Your task to perform on an android device: What's the news in Taiwan? Image 0: 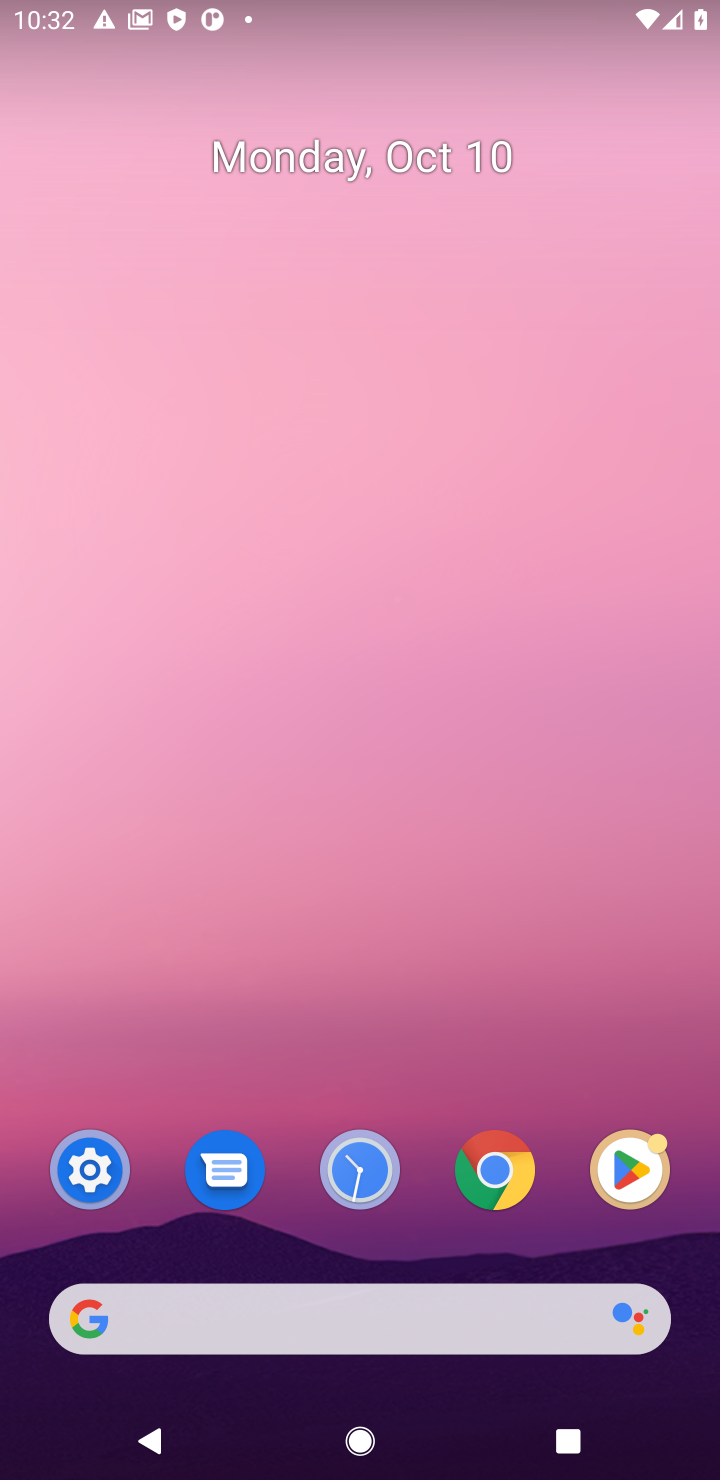
Step 0: drag from (284, 1262) to (266, 289)
Your task to perform on an android device: What's the news in Taiwan? Image 1: 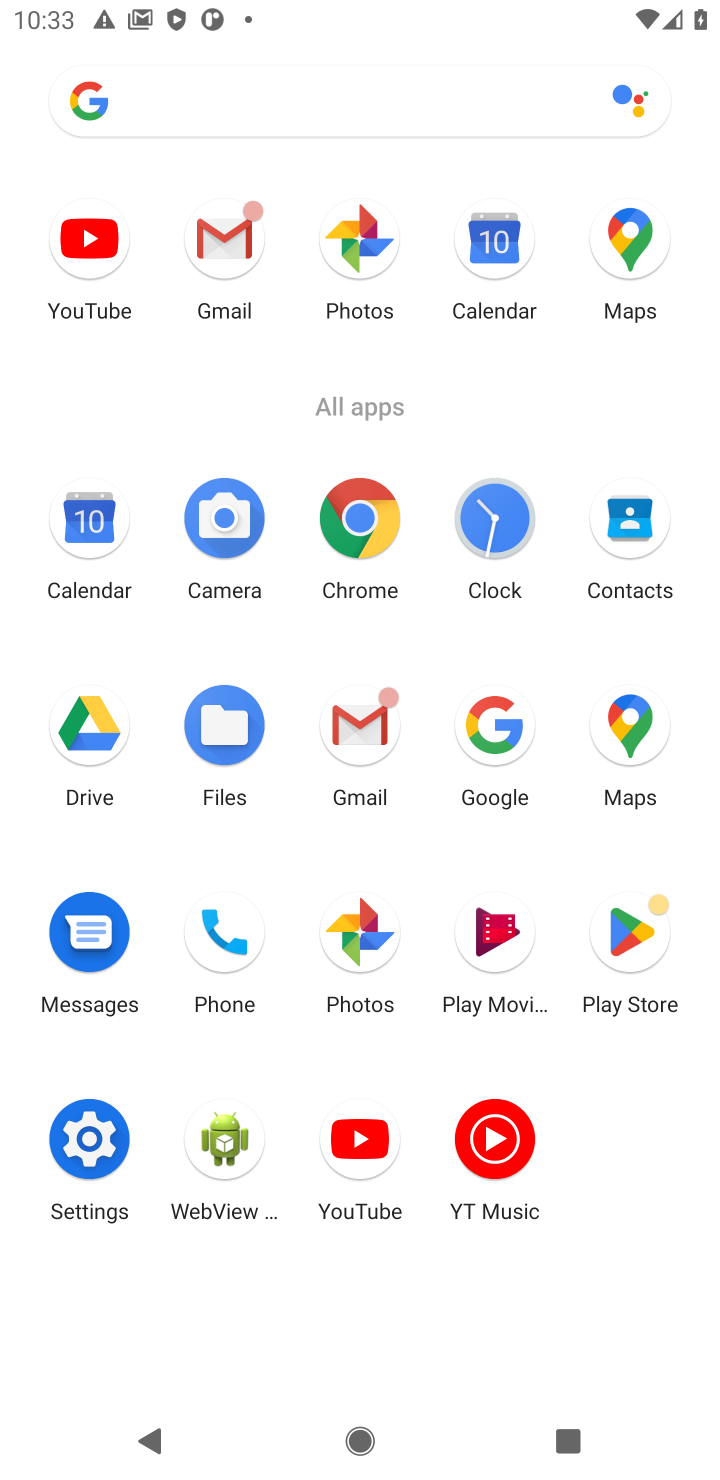
Step 1: click (500, 725)
Your task to perform on an android device: What's the news in Taiwan? Image 2: 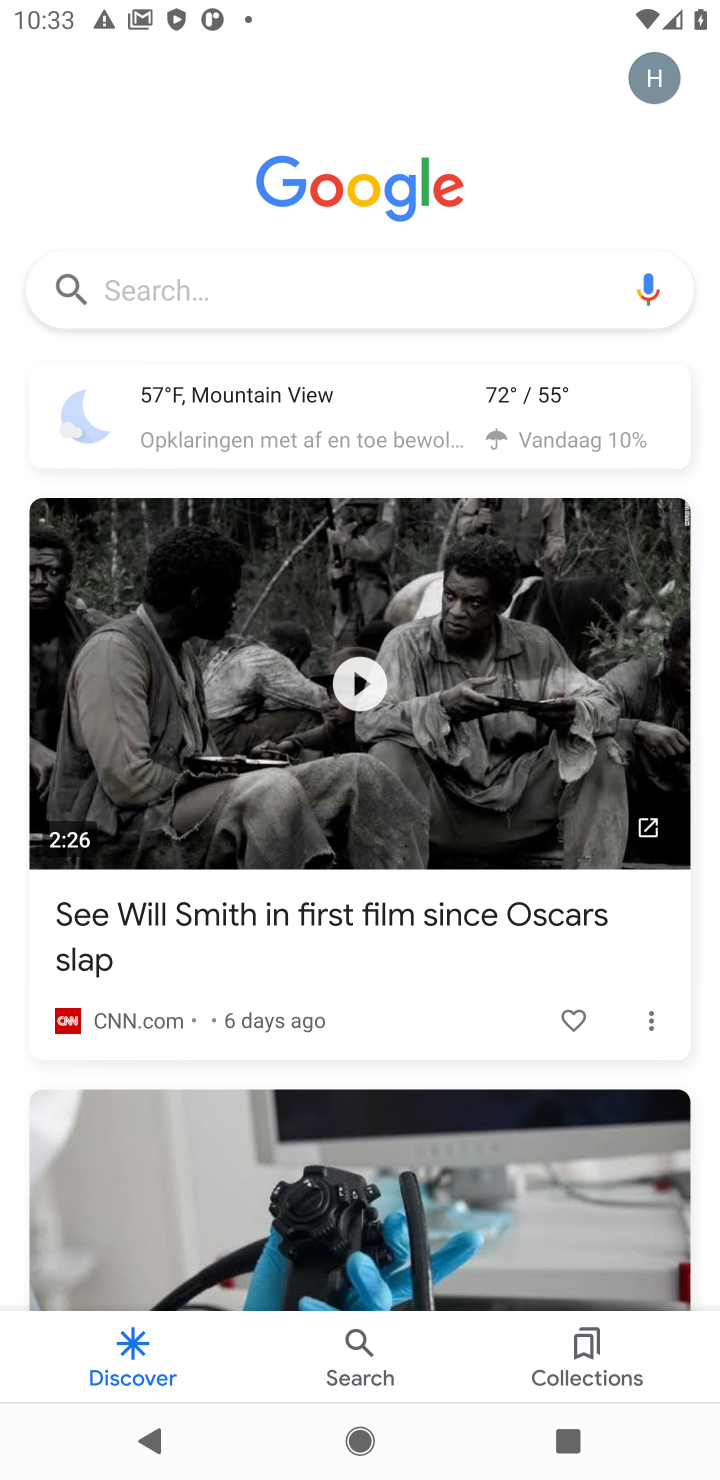
Step 2: click (376, 298)
Your task to perform on an android device: What's the news in Taiwan? Image 3: 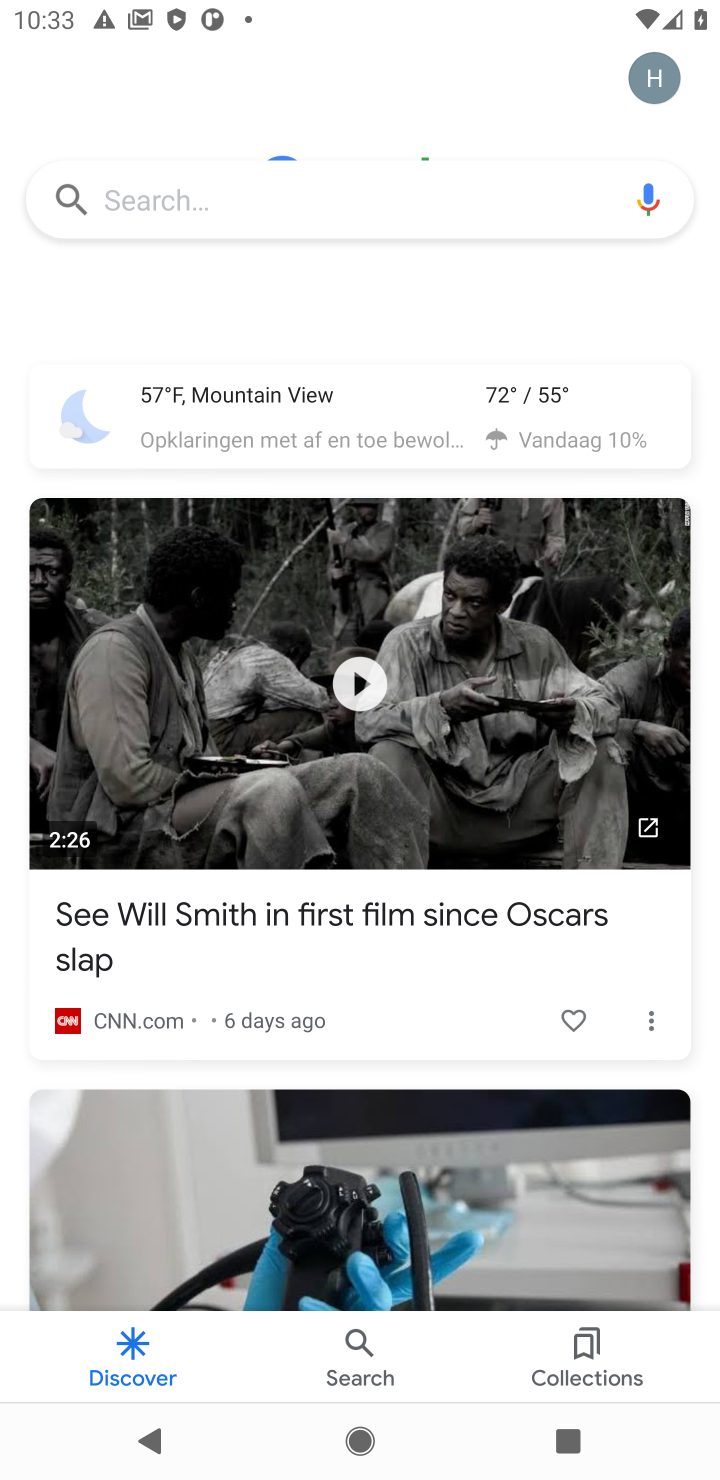
Step 3: click (376, 298)
Your task to perform on an android device: What's the news in Taiwan? Image 4: 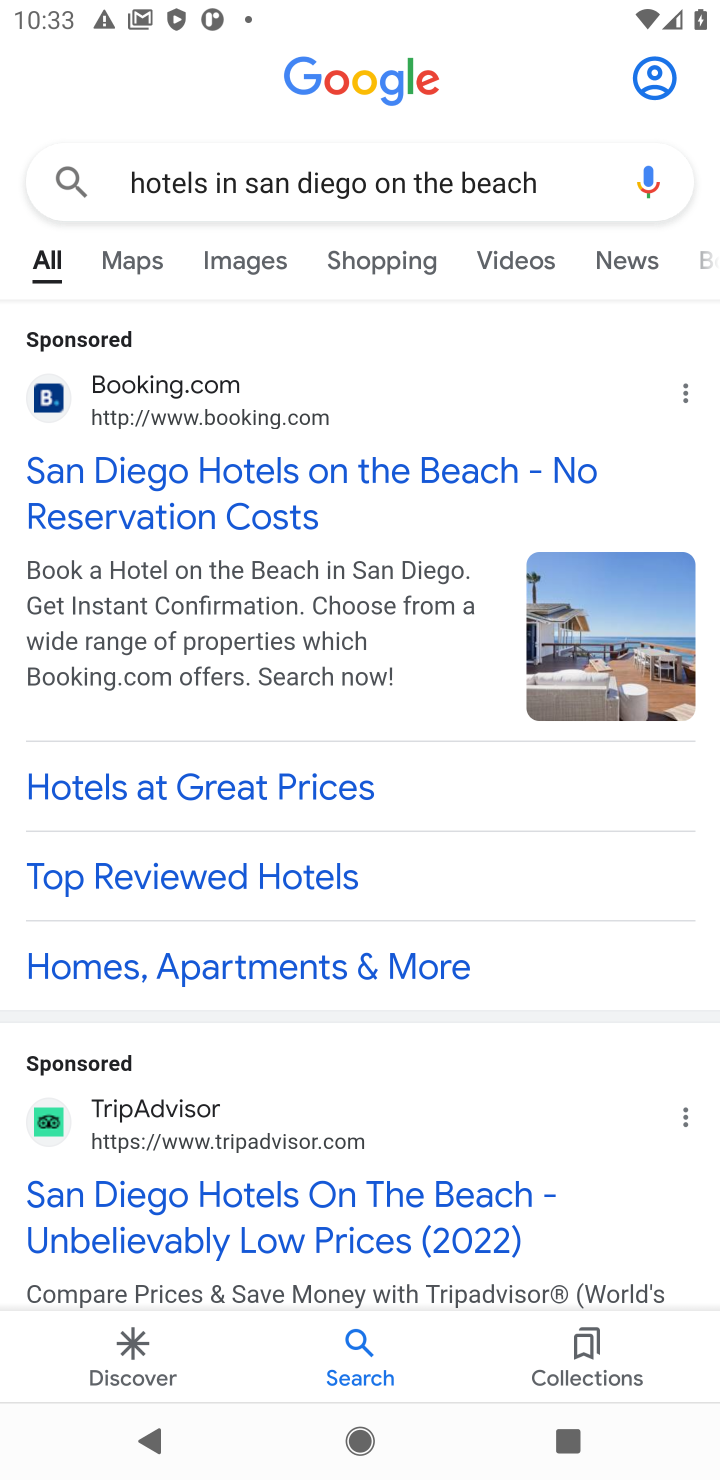
Step 4: click (518, 170)
Your task to perform on an android device: What's the news in Taiwan? Image 5: 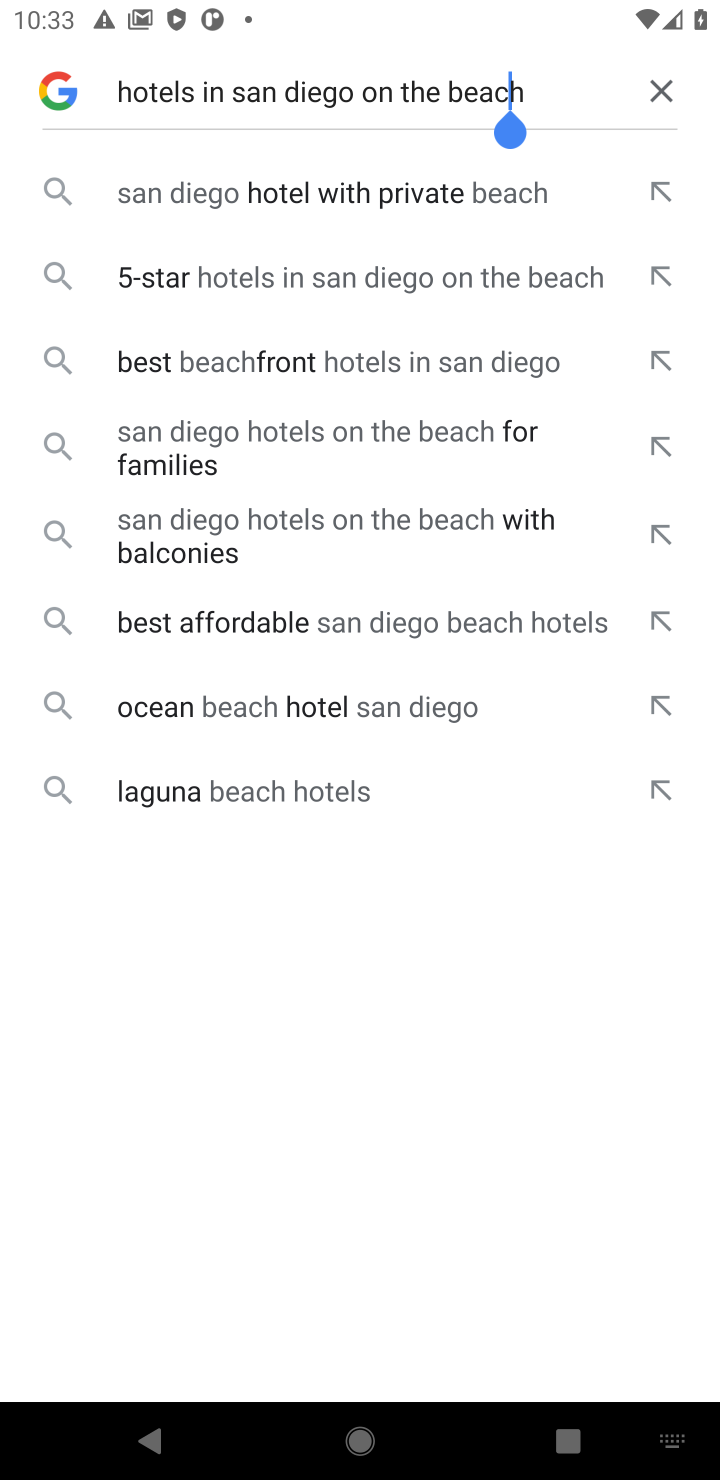
Step 5: click (671, 61)
Your task to perform on an android device: What's the news in Taiwan? Image 6: 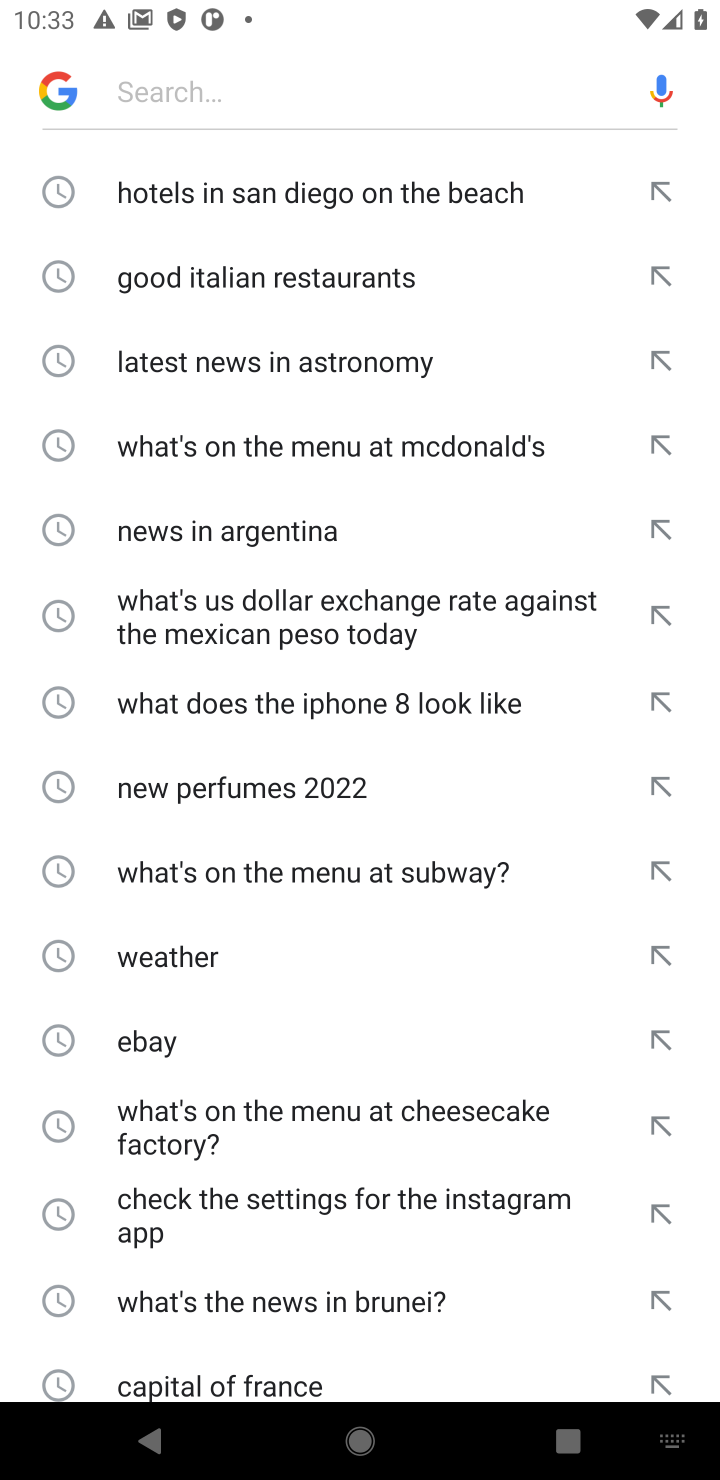
Step 6: type "news in Taiwan"
Your task to perform on an android device: What's the news in Taiwan? Image 7: 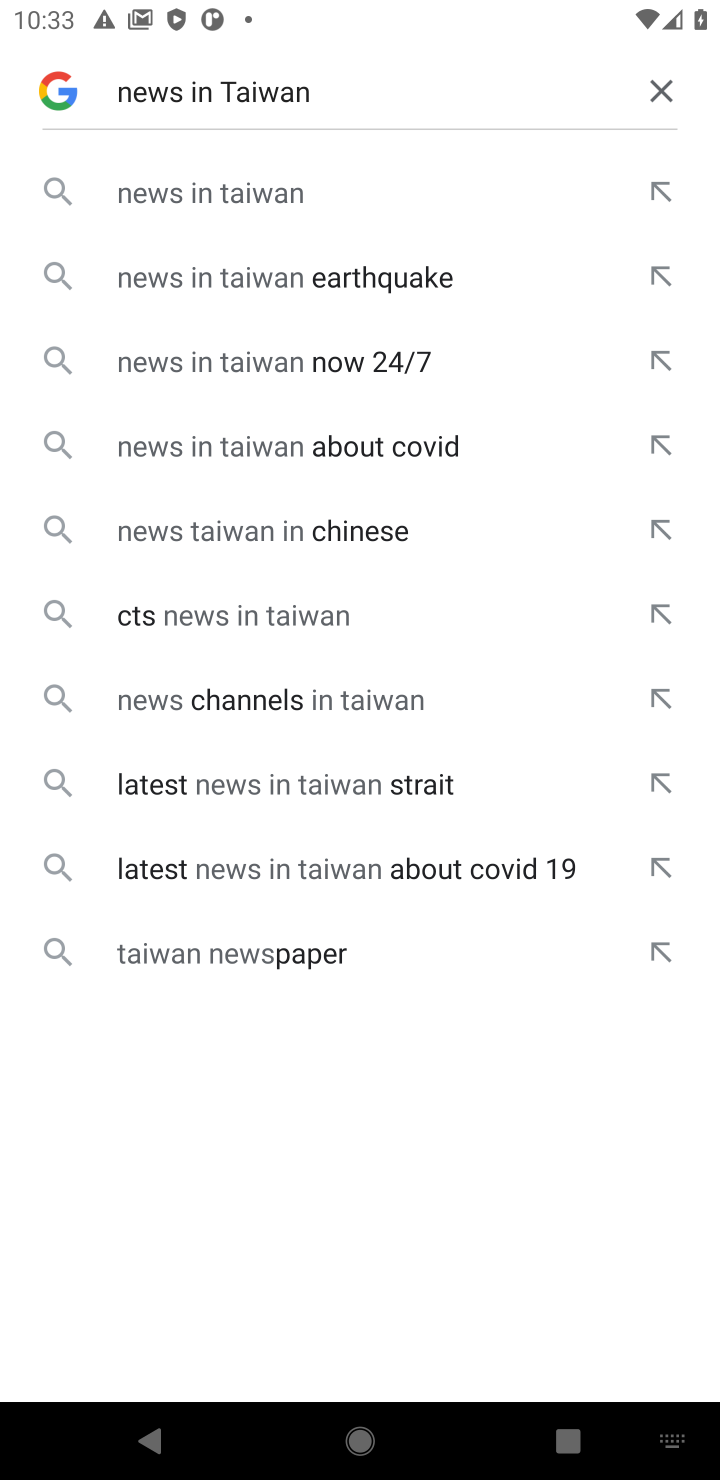
Step 7: click (391, 169)
Your task to perform on an android device: What's the news in Taiwan? Image 8: 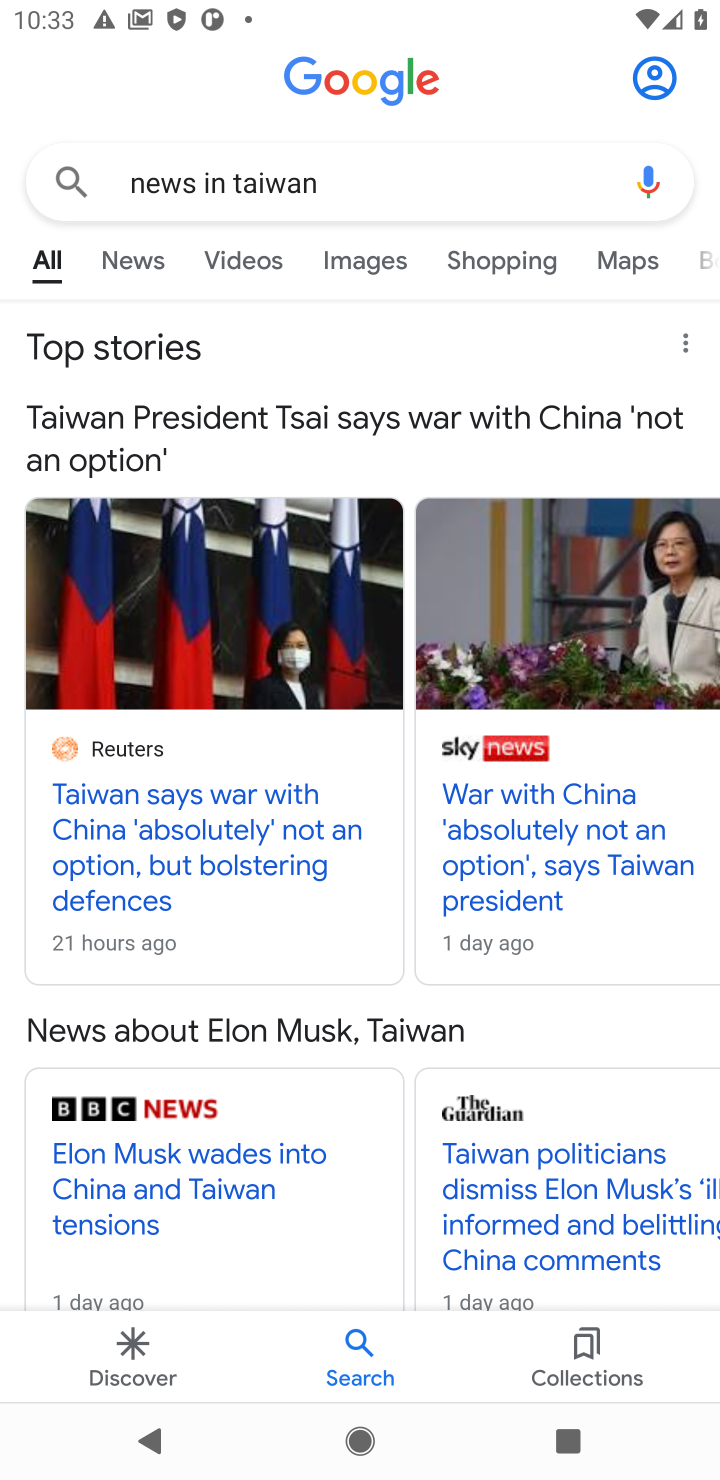
Step 8: click (141, 257)
Your task to perform on an android device: What's the news in Taiwan? Image 9: 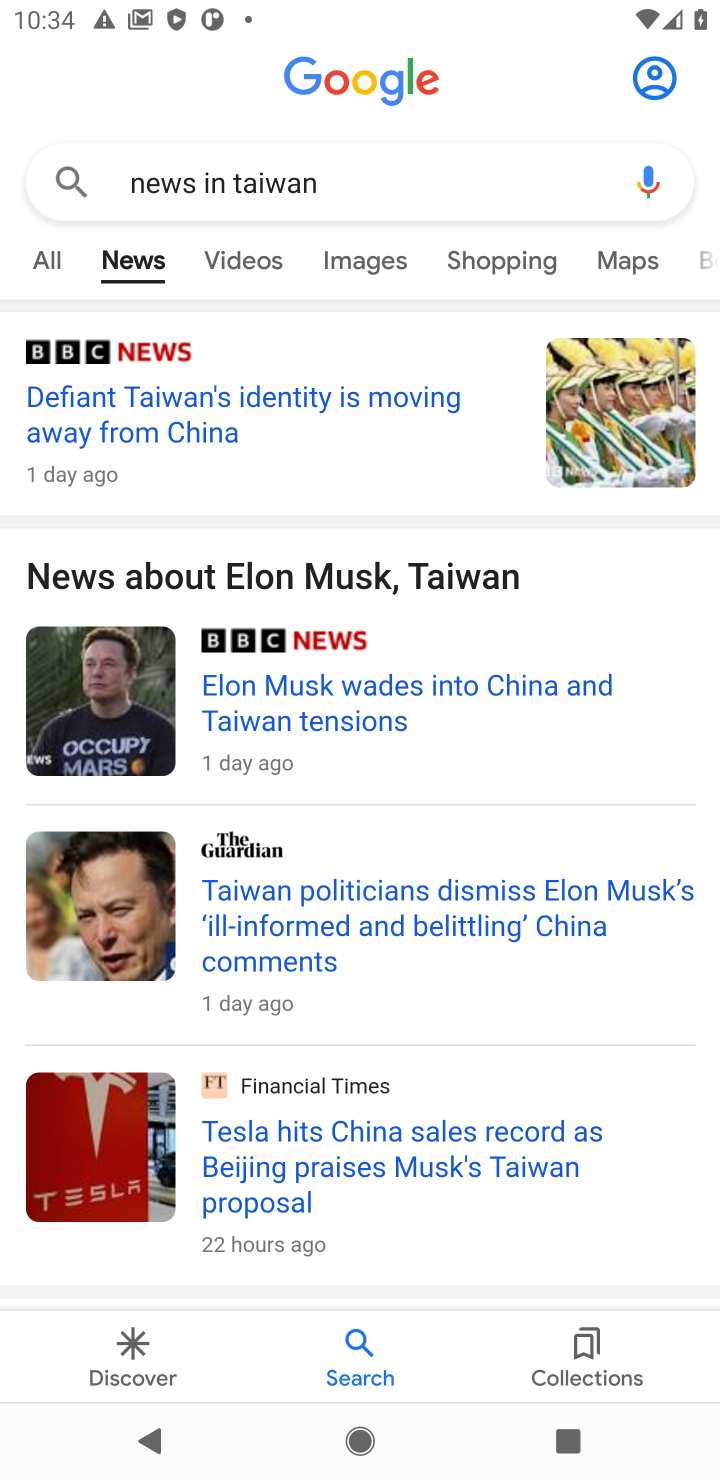
Step 9: task complete